Your task to perform on an android device: delete the emails in spam in the gmail app Image 0: 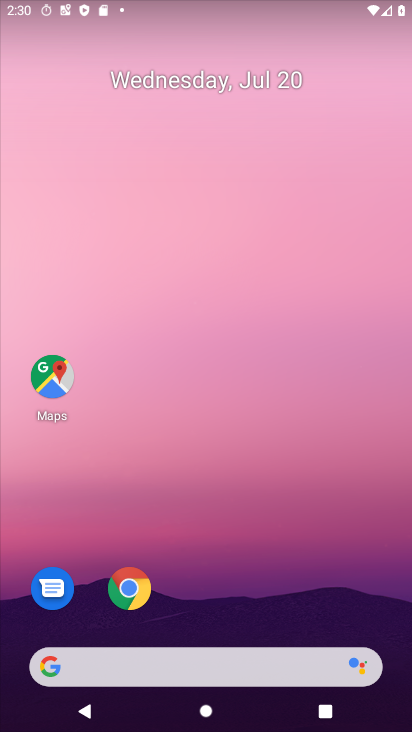
Step 0: drag from (283, 502) to (192, 0)
Your task to perform on an android device: delete the emails in spam in the gmail app Image 1: 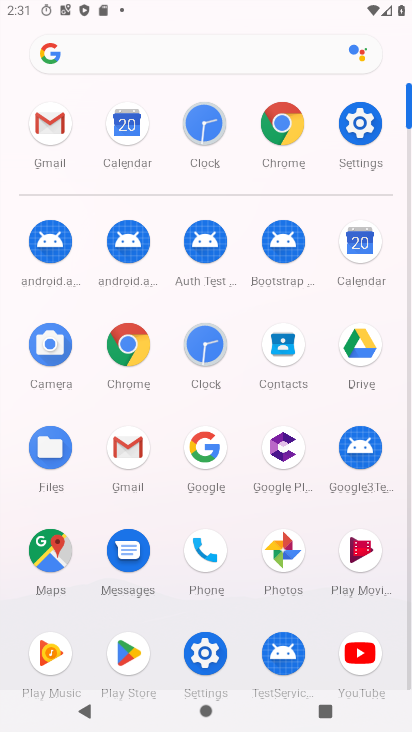
Step 1: click (40, 104)
Your task to perform on an android device: delete the emails in spam in the gmail app Image 2: 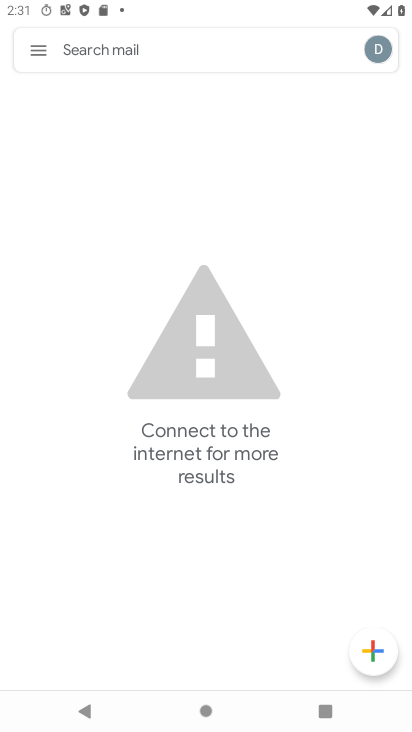
Step 2: click (46, 53)
Your task to perform on an android device: delete the emails in spam in the gmail app Image 3: 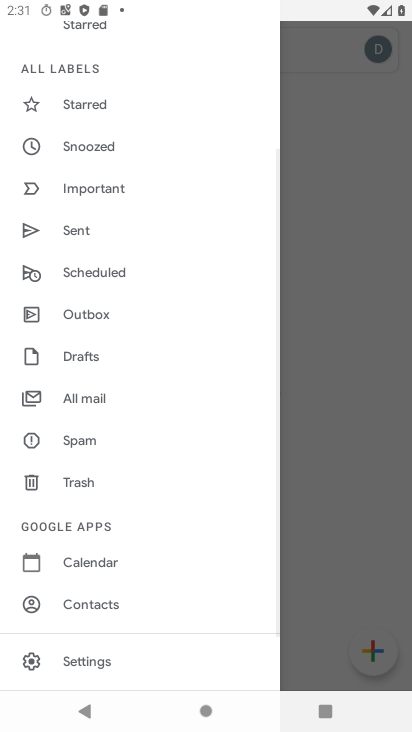
Step 3: drag from (129, 213) to (217, 546)
Your task to perform on an android device: delete the emails in spam in the gmail app Image 4: 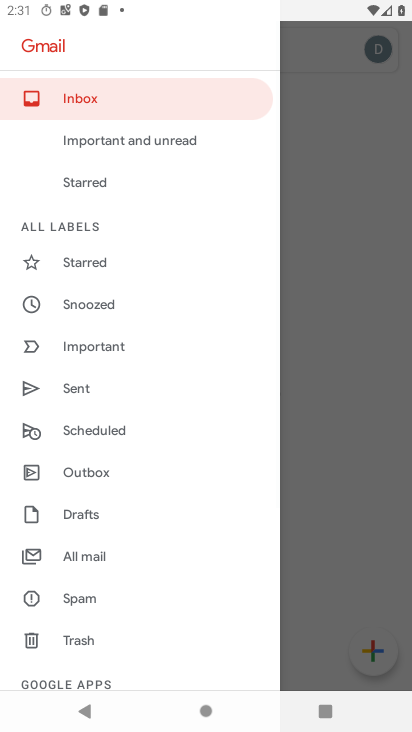
Step 4: click (69, 95)
Your task to perform on an android device: delete the emails in spam in the gmail app Image 5: 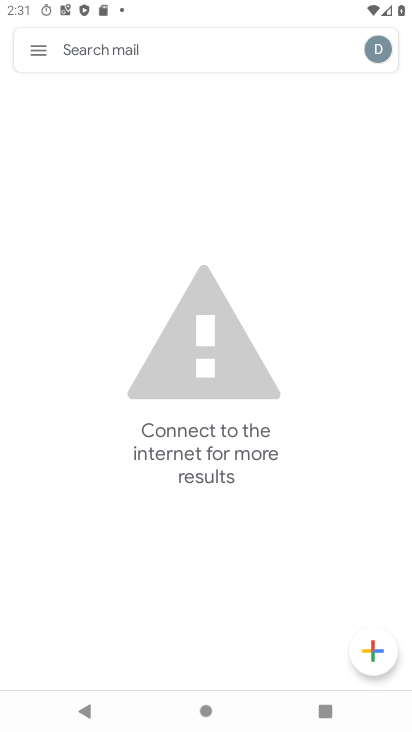
Step 5: task complete